Your task to perform on an android device: open a new tab in the chrome app Image 0: 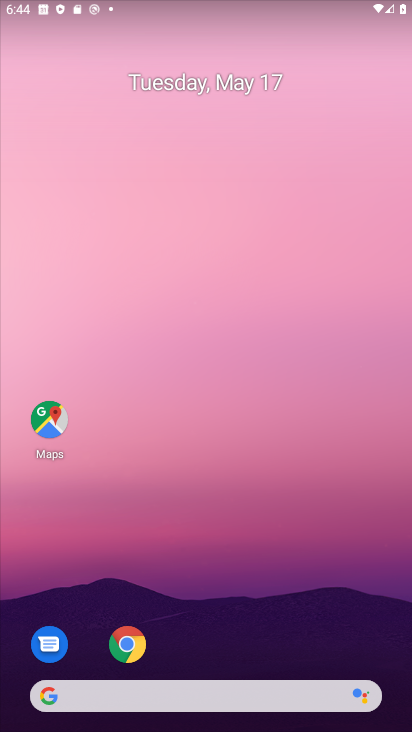
Step 0: drag from (385, 643) to (276, 91)
Your task to perform on an android device: open a new tab in the chrome app Image 1: 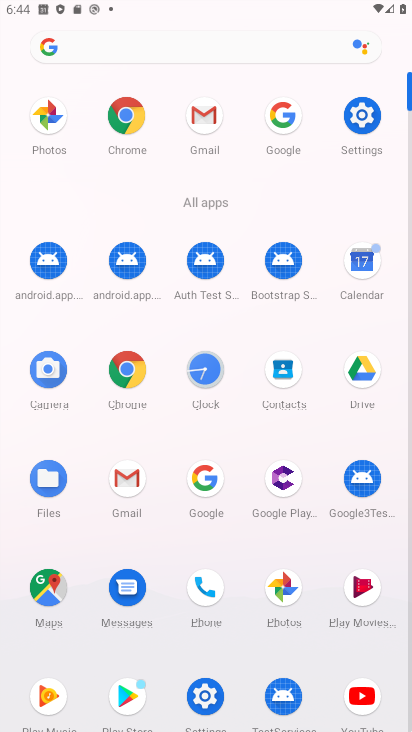
Step 1: click (122, 121)
Your task to perform on an android device: open a new tab in the chrome app Image 2: 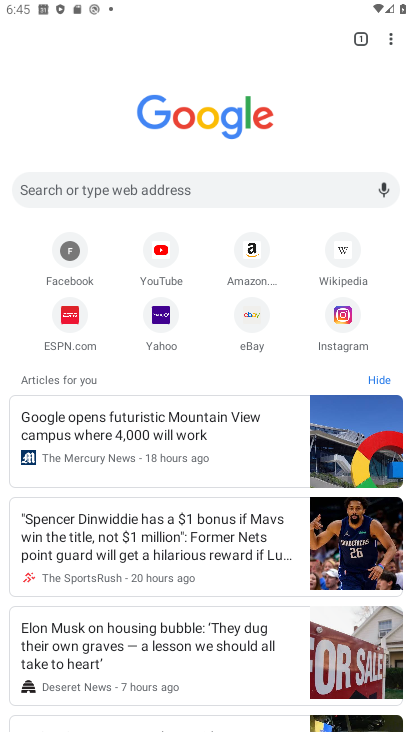
Step 2: click (359, 44)
Your task to perform on an android device: open a new tab in the chrome app Image 3: 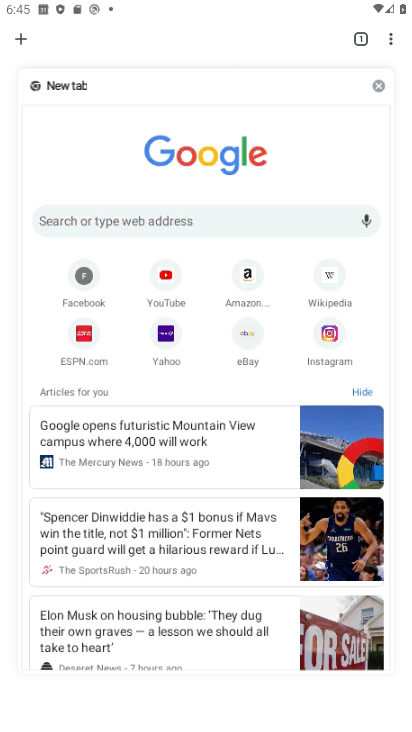
Step 3: click (391, 39)
Your task to perform on an android device: open a new tab in the chrome app Image 4: 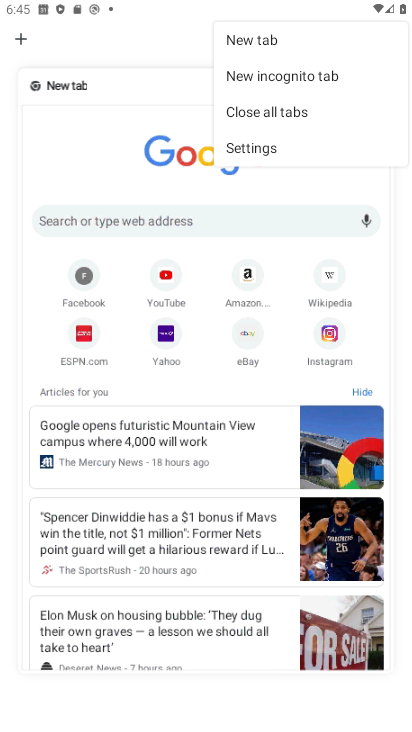
Step 4: click (271, 46)
Your task to perform on an android device: open a new tab in the chrome app Image 5: 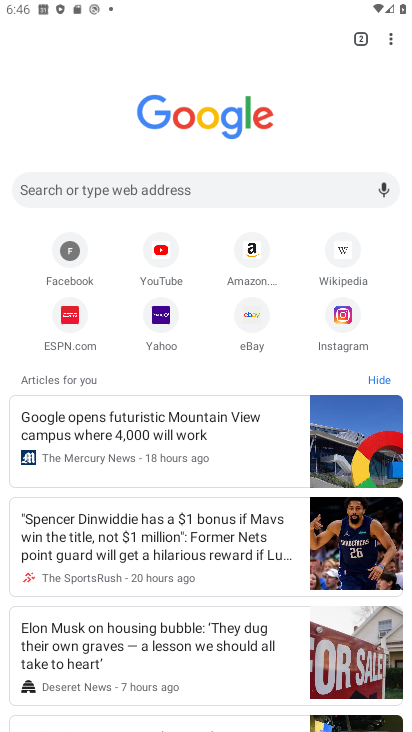
Step 5: task complete